Your task to perform on an android device: Open accessibility settings Image 0: 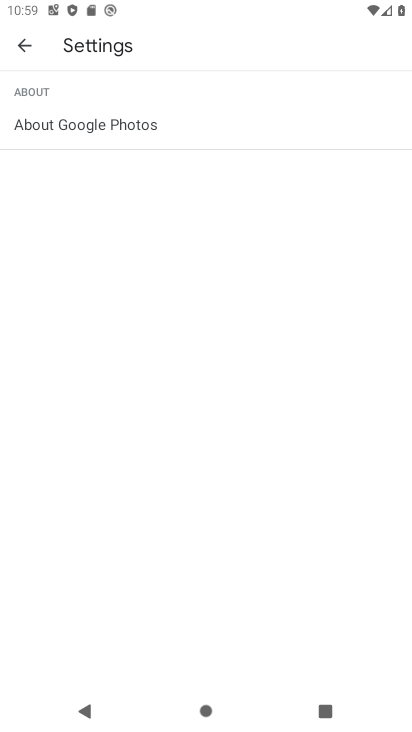
Step 0: press home button
Your task to perform on an android device: Open accessibility settings Image 1: 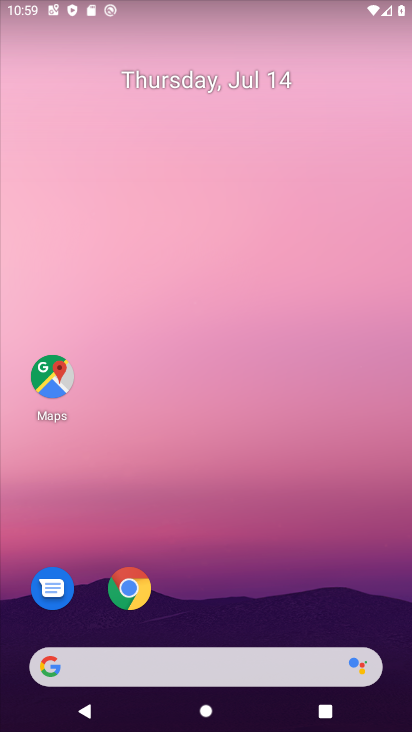
Step 1: drag from (212, 667) to (265, 163)
Your task to perform on an android device: Open accessibility settings Image 2: 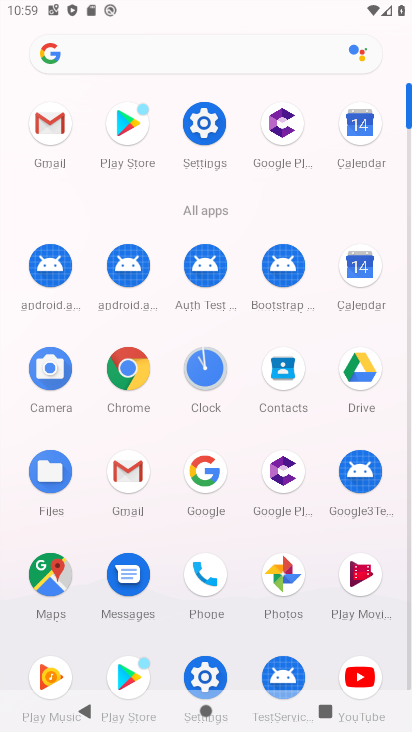
Step 2: click (202, 121)
Your task to perform on an android device: Open accessibility settings Image 3: 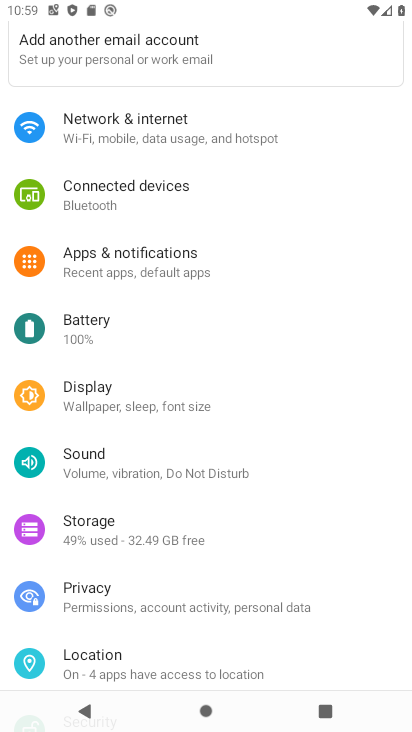
Step 3: drag from (109, 567) to (154, 485)
Your task to perform on an android device: Open accessibility settings Image 4: 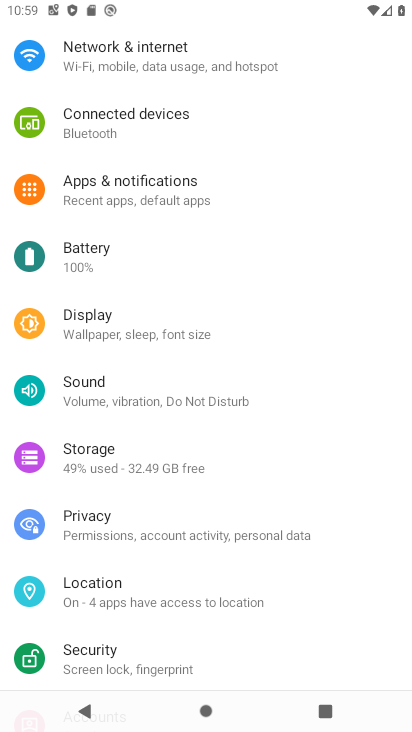
Step 4: drag from (91, 623) to (164, 543)
Your task to perform on an android device: Open accessibility settings Image 5: 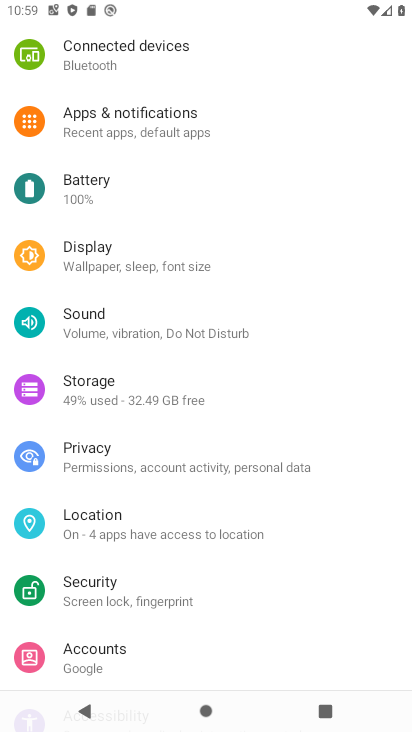
Step 5: drag from (91, 624) to (200, 502)
Your task to perform on an android device: Open accessibility settings Image 6: 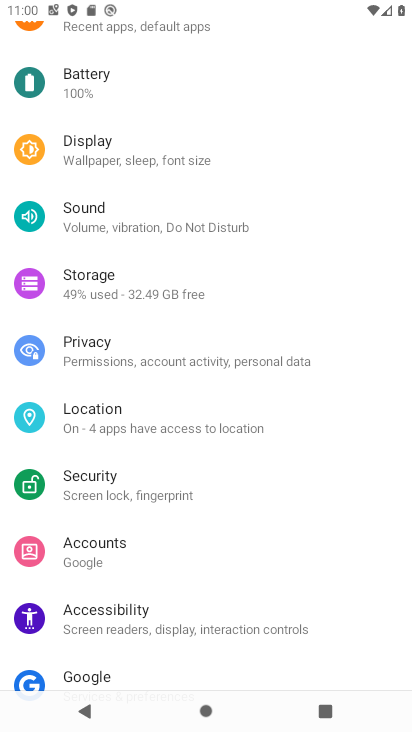
Step 6: click (99, 618)
Your task to perform on an android device: Open accessibility settings Image 7: 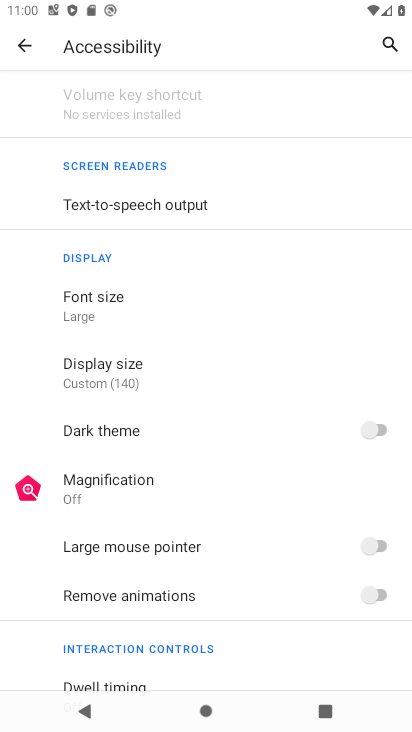
Step 7: task complete